Your task to perform on an android device: turn on priority inbox in the gmail app Image 0: 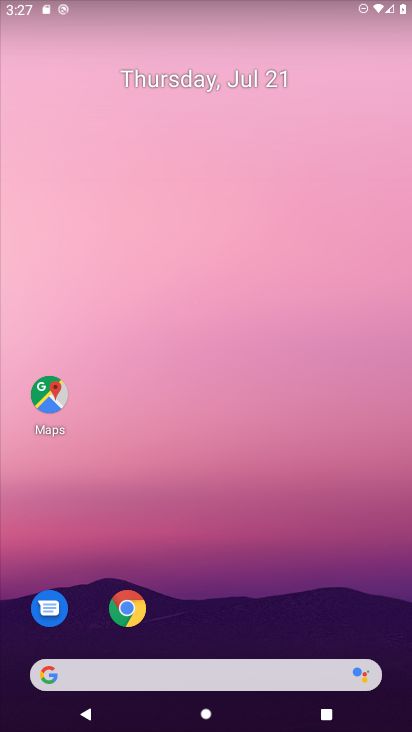
Step 0: drag from (223, 624) to (194, 141)
Your task to perform on an android device: turn on priority inbox in the gmail app Image 1: 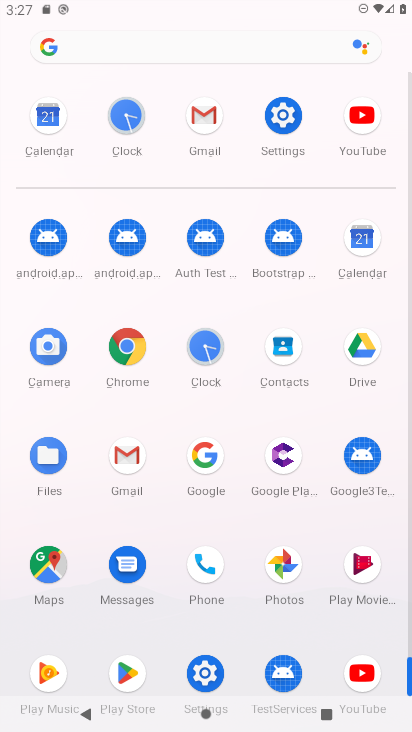
Step 1: click (195, 136)
Your task to perform on an android device: turn on priority inbox in the gmail app Image 2: 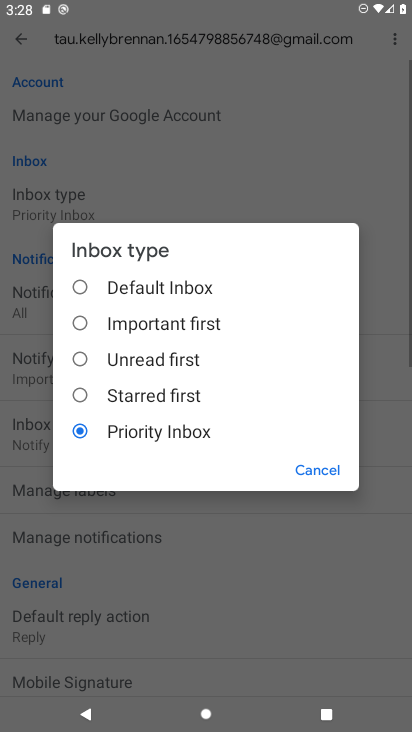
Step 2: click (303, 466)
Your task to perform on an android device: turn on priority inbox in the gmail app Image 3: 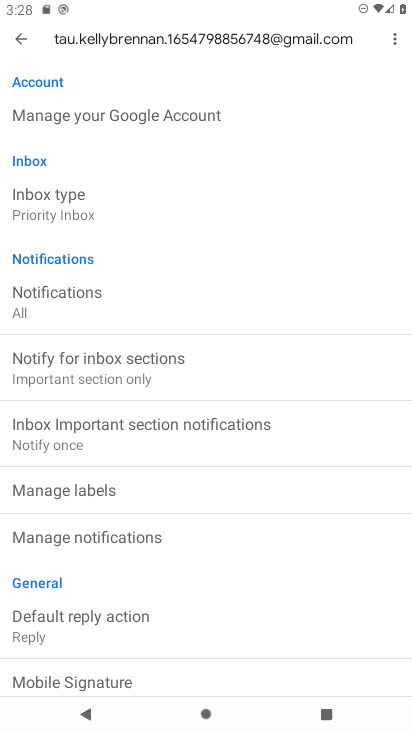
Step 3: click (101, 222)
Your task to perform on an android device: turn on priority inbox in the gmail app Image 4: 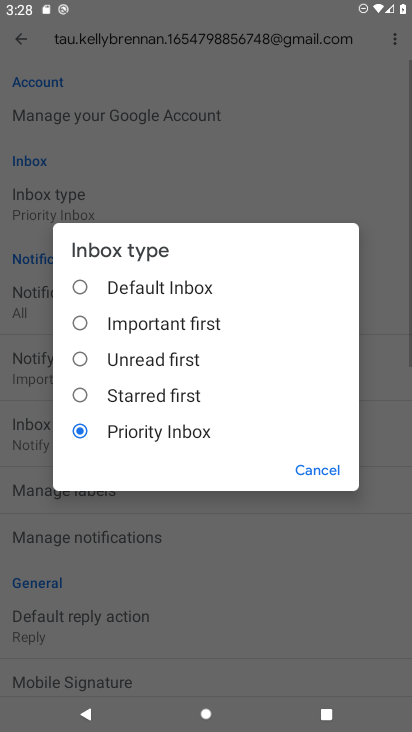
Step 4: task complete